Your task to perform on an android device: read, delete, or share a saved page in the chrome app Image 0: 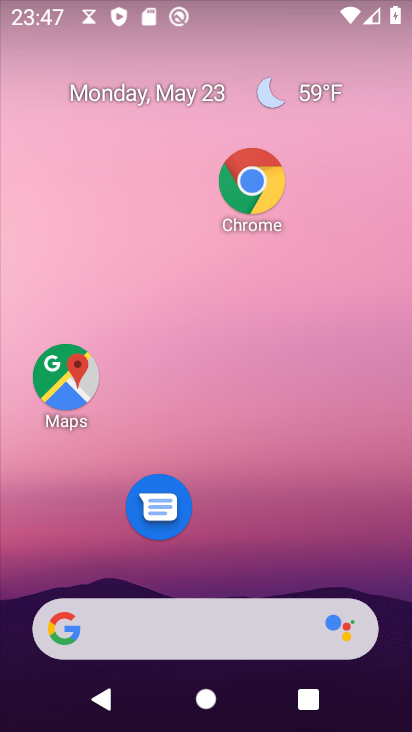
Step 0: drag from (308, 494) to (344, 252)
Your task to perform on an android device: read, delete, or share a saved page in the chrome app Image 1: 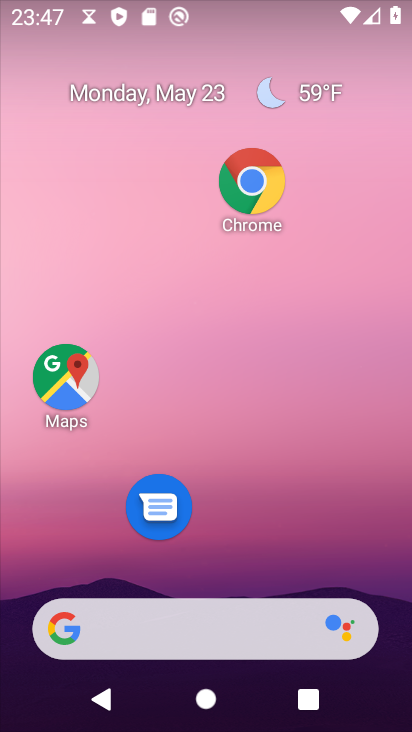
Step 1: drag from (347, 401) to (342, 217)
Your task to perform on an android device: read, delete, or share a saved page in the chrome app Image 2: 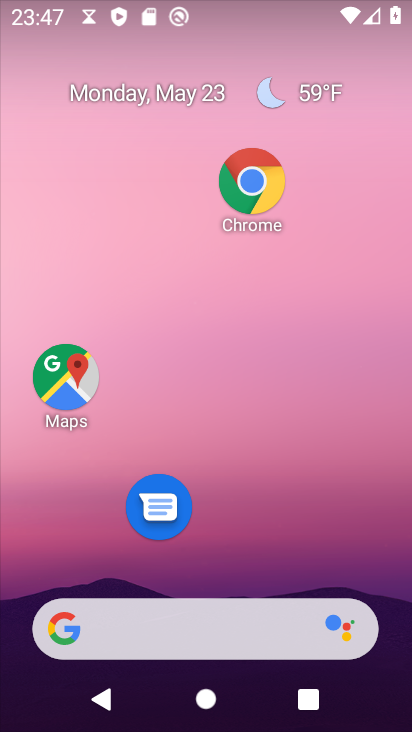
Step 2: drag from (304, 474) to (282, 184)
Your task to perform on an android device: read, delete, or share a saved page in the chrome app Image 3: 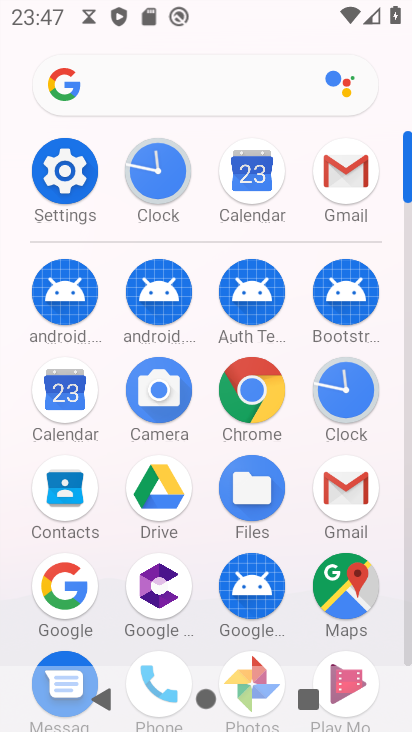
Step 3: click (235, 385)
Your task to perform on an android device: read, delete, or share a saved page in the chrome app Image 4: 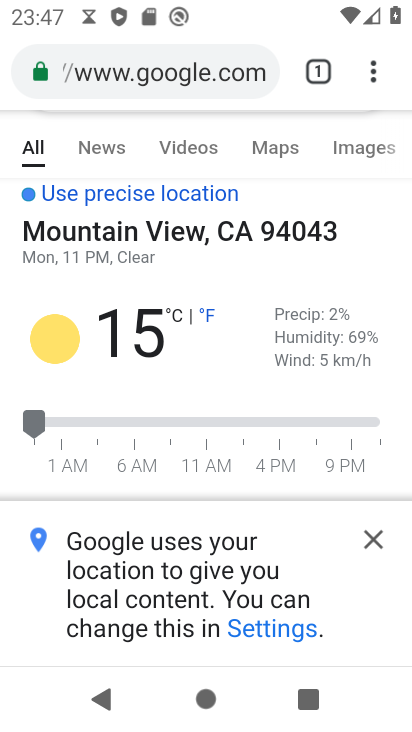
Step 4: click (374, 74)
Your task to perform on an android device: read, delete, or share a saved page in the chrome app Image 5: 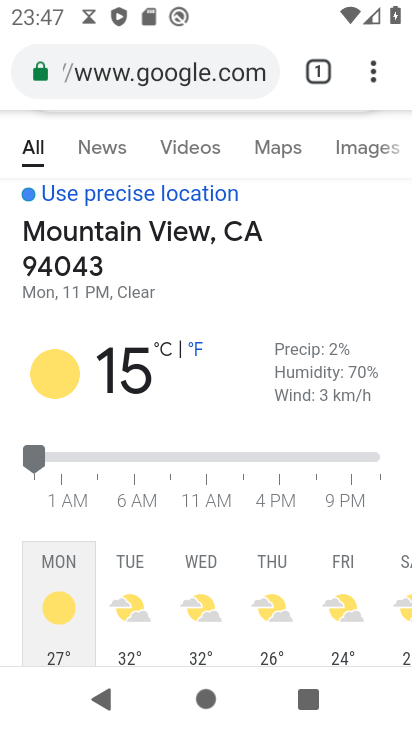
Step 5: click (374, 83)
Your task to perform on an android device: read, delete, or share a saved page in the chrome app Image 6: 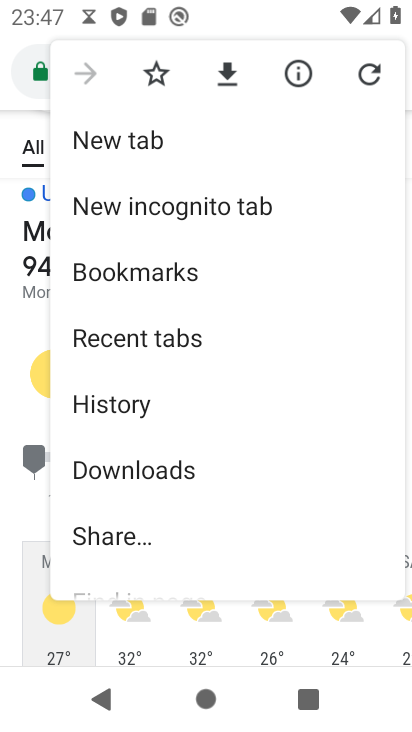
Step 6: click (168, 471)
Your task to perform on an android device: read, delete, or share a saved page in the chrome app Image 7: 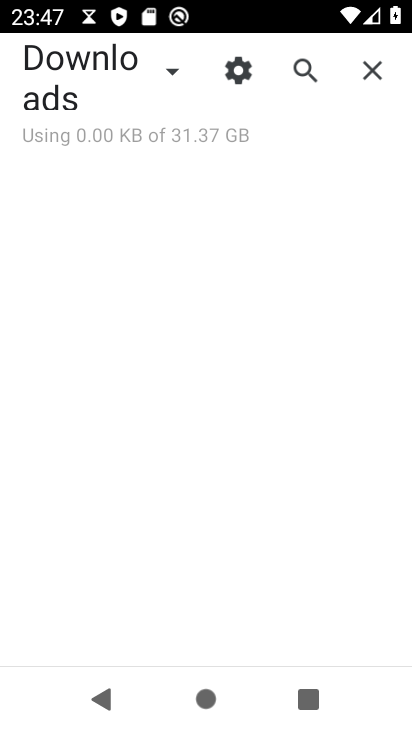
Step 7: click (177, 65)
Your task to perform on an android device: read, delete, or share a saved page in the chrome app Image 8: 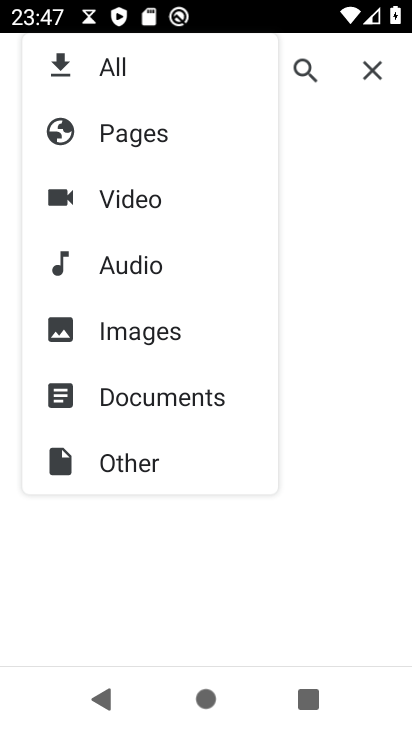
Step 8: click (176, 121)
Your task to perform on an android device: read, delete, or share a saved page in the chrome app Image 9: 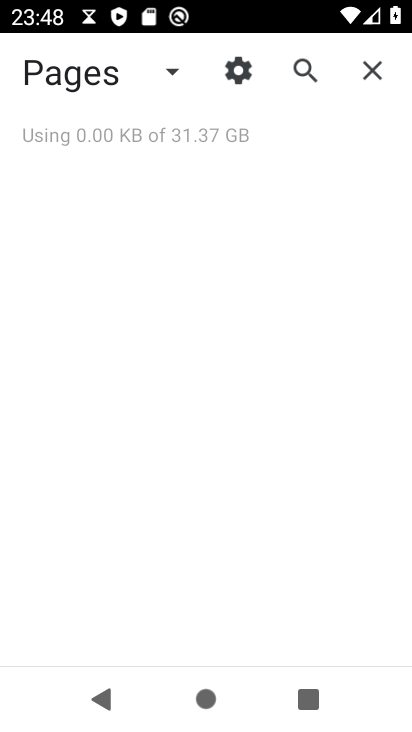
Step 9: task complete